Your task to perform on an android device: Is it going to rain this weekend? Image 0: 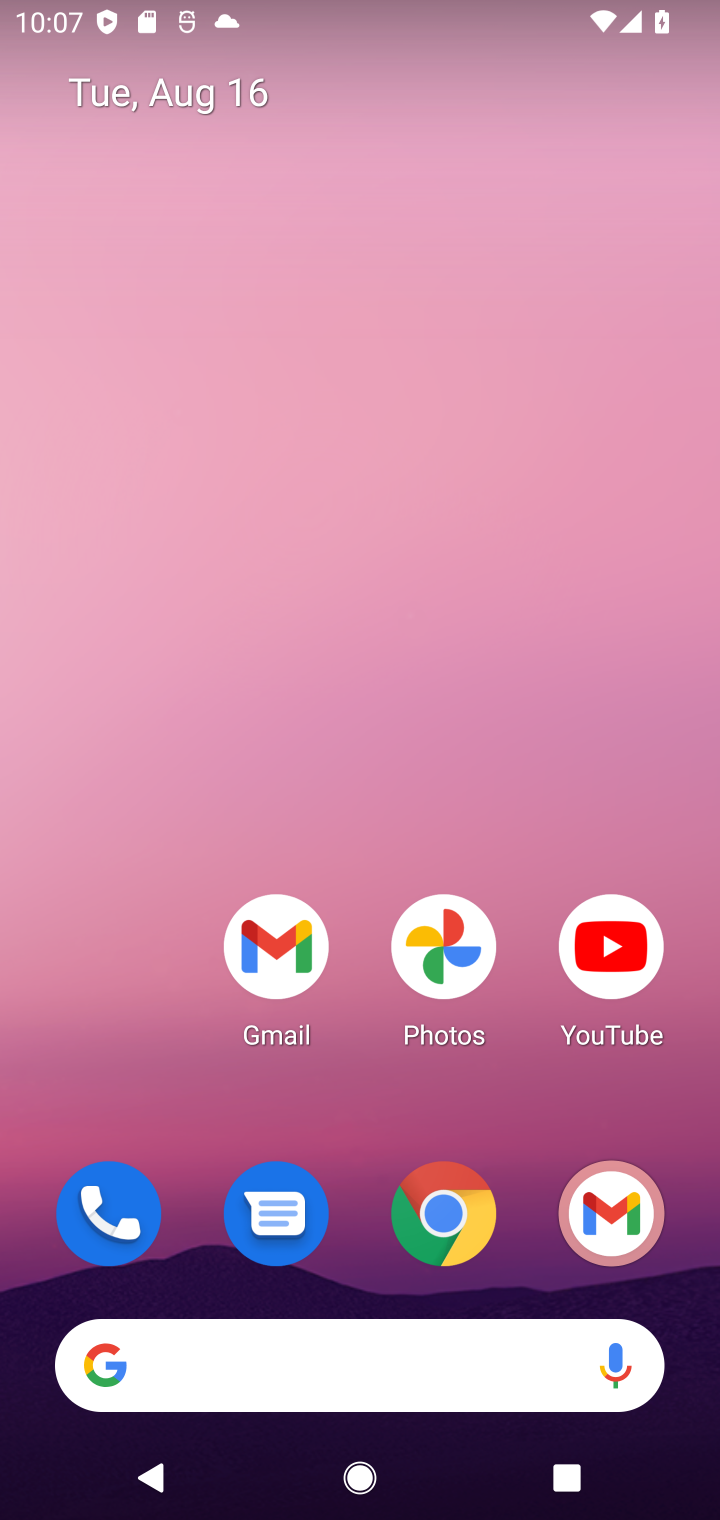
Step 0: drag from (353, 1230) to (451, 291)
Your task to perform on an android device: Is it going to rain this weekend? Image 1: 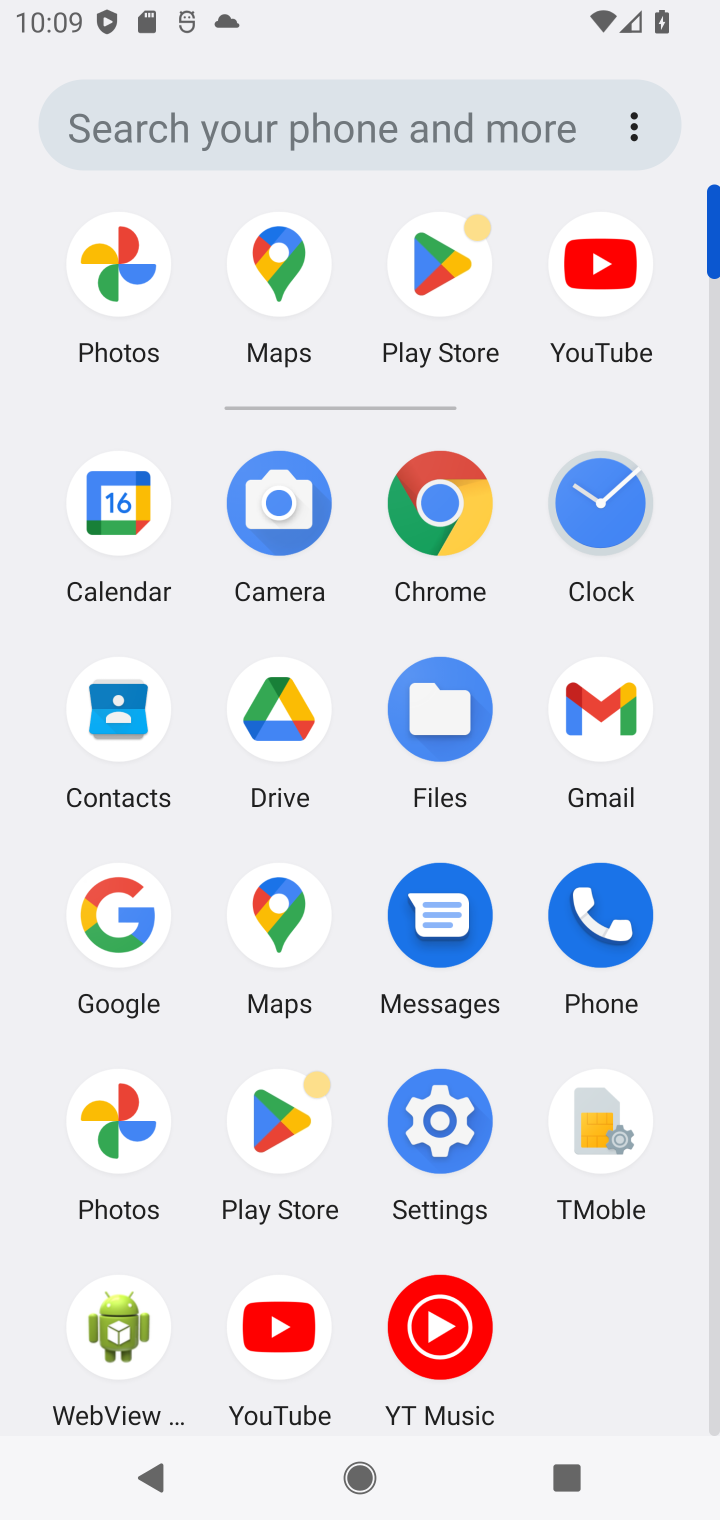
Step 1: click (458, 497)
Your task to perform on an android device: Is it going to rain this weekend? Image 2: 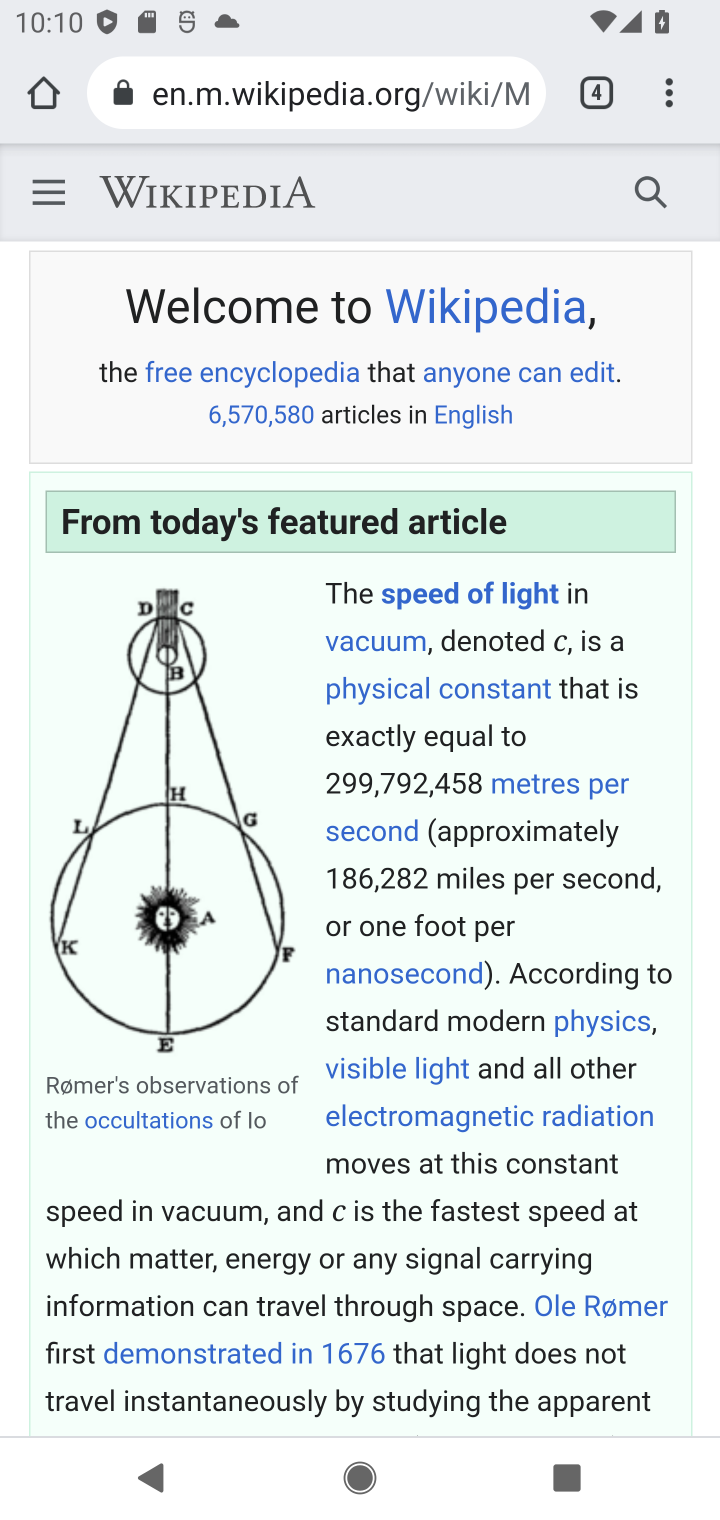
Step 2: click (691, 78)
Your task to perform on an android device: Is it going to rain this weekend? Image 3: 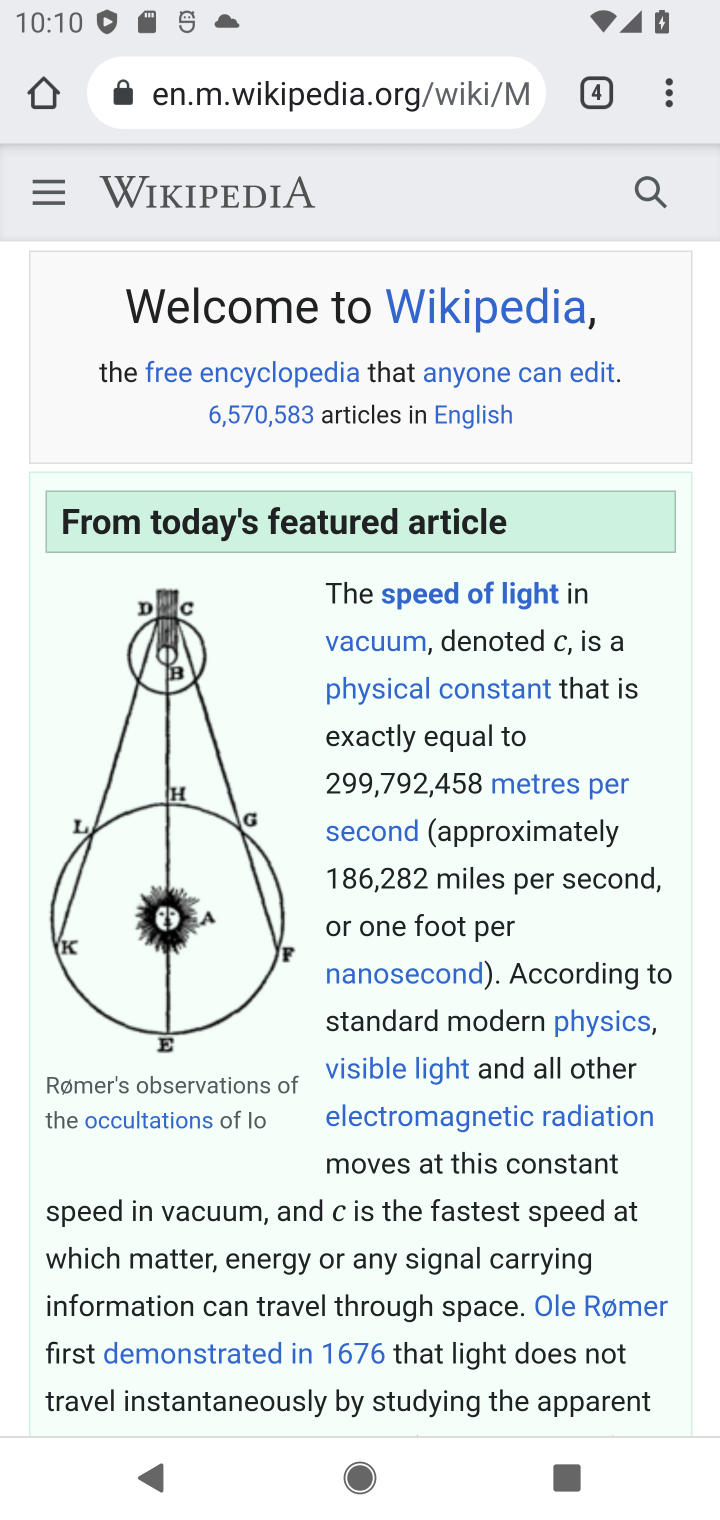
Step 3: click (664, 97)
Your task to perform on an android device: Is it going to rain this weekend? Image 4: 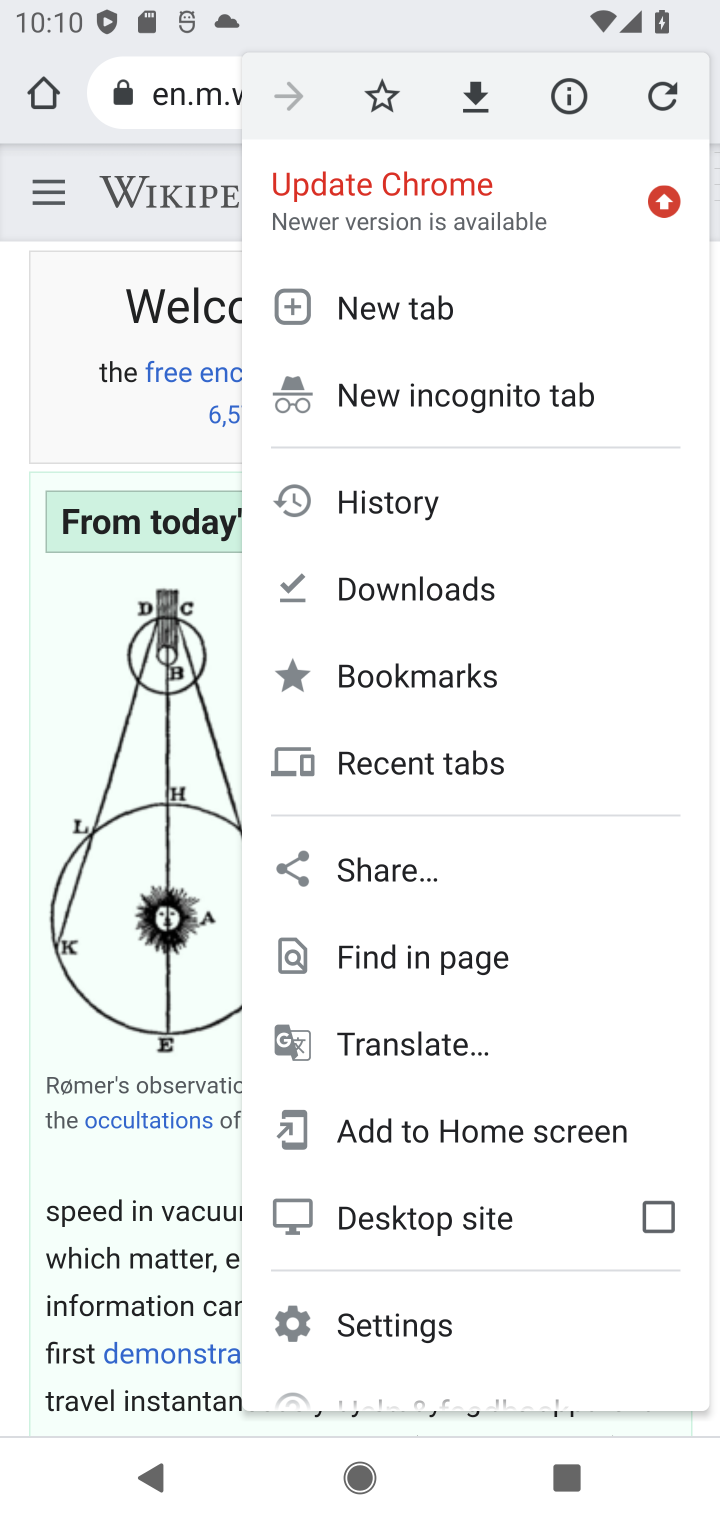
Step 4: click (330, 302)
Your task to perform on an android device: Is it going to rain this weekend? Image 5: 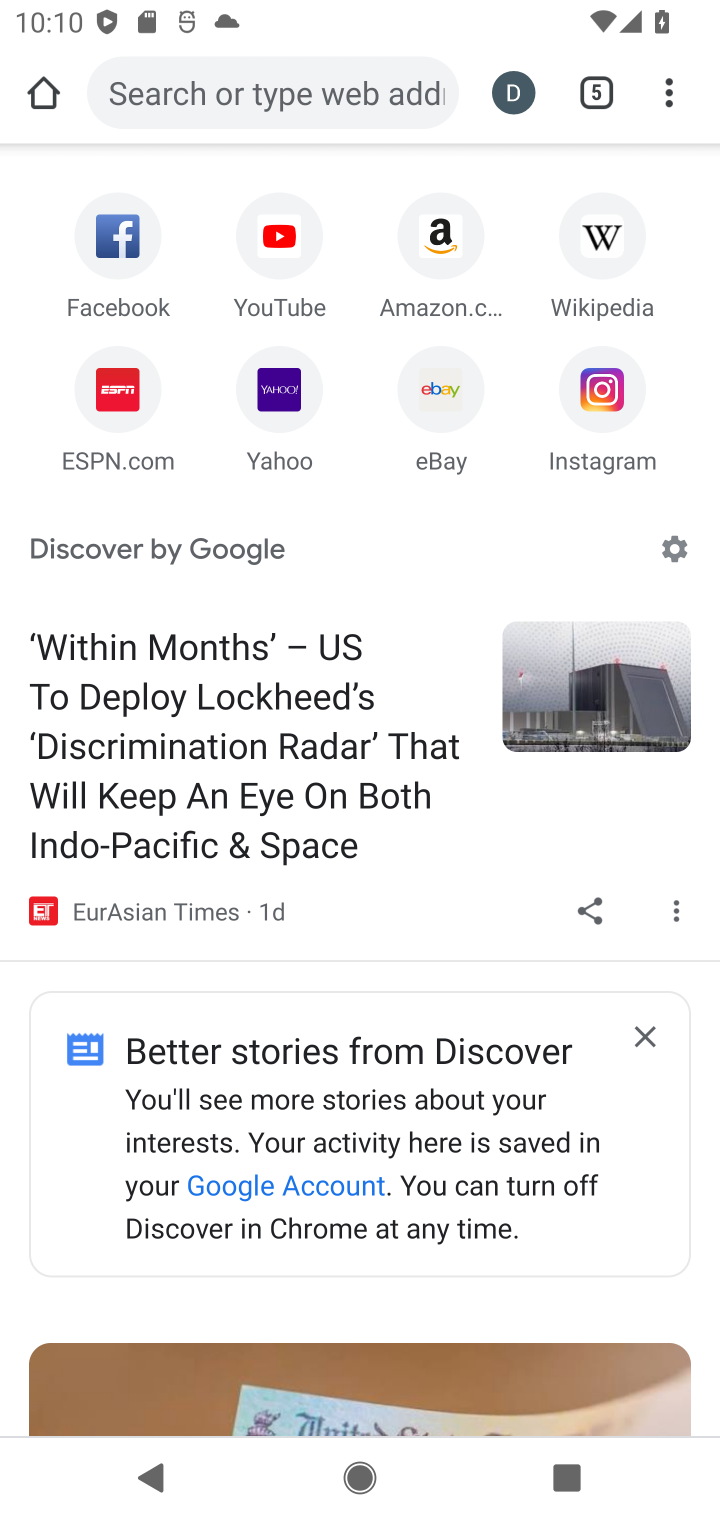
Step 5: click (298, 77)
Your task to perform on an android device: Is it going to rain this weekend? Image 6: 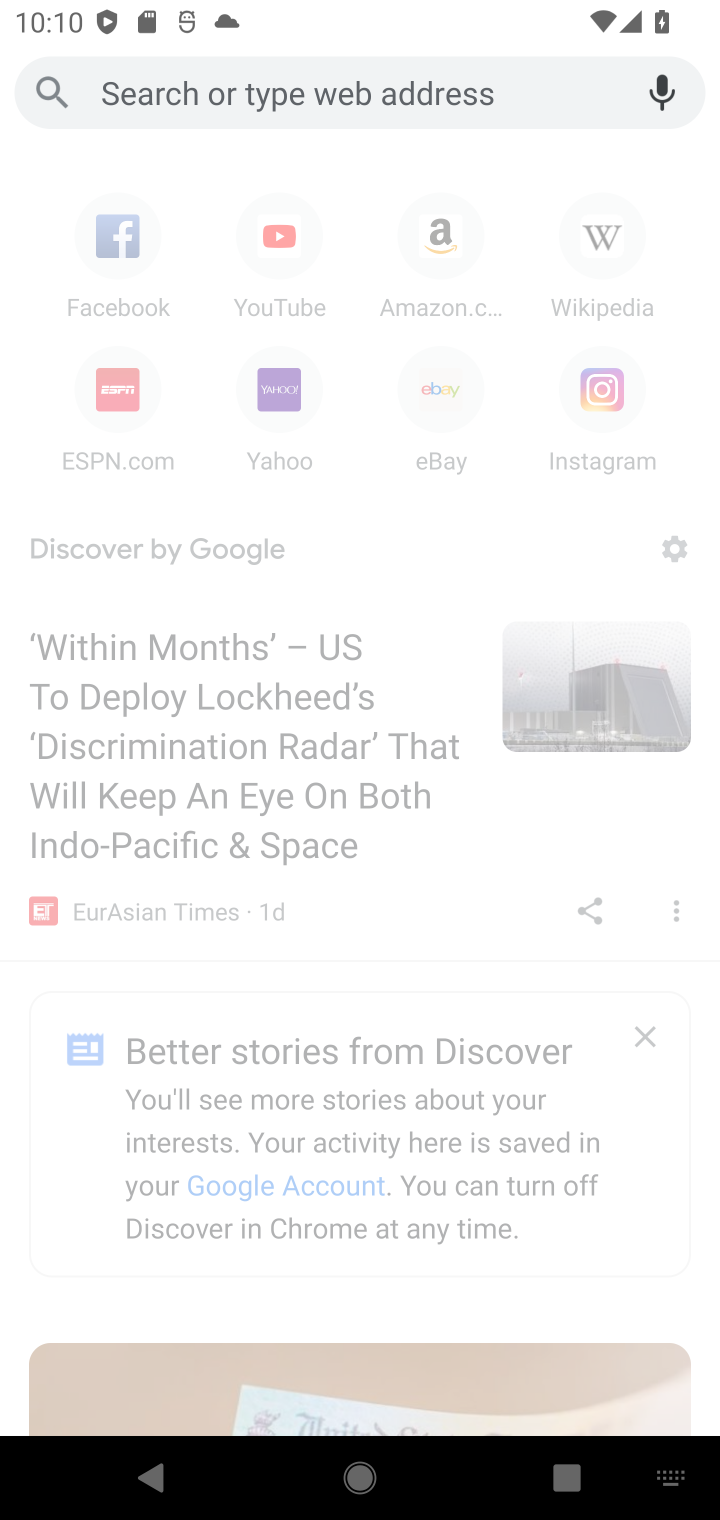
Step 6: type "Is it going to rain this weekend? "
Your task to perform on an android device: Is it going to rain this weekend? Image 7: 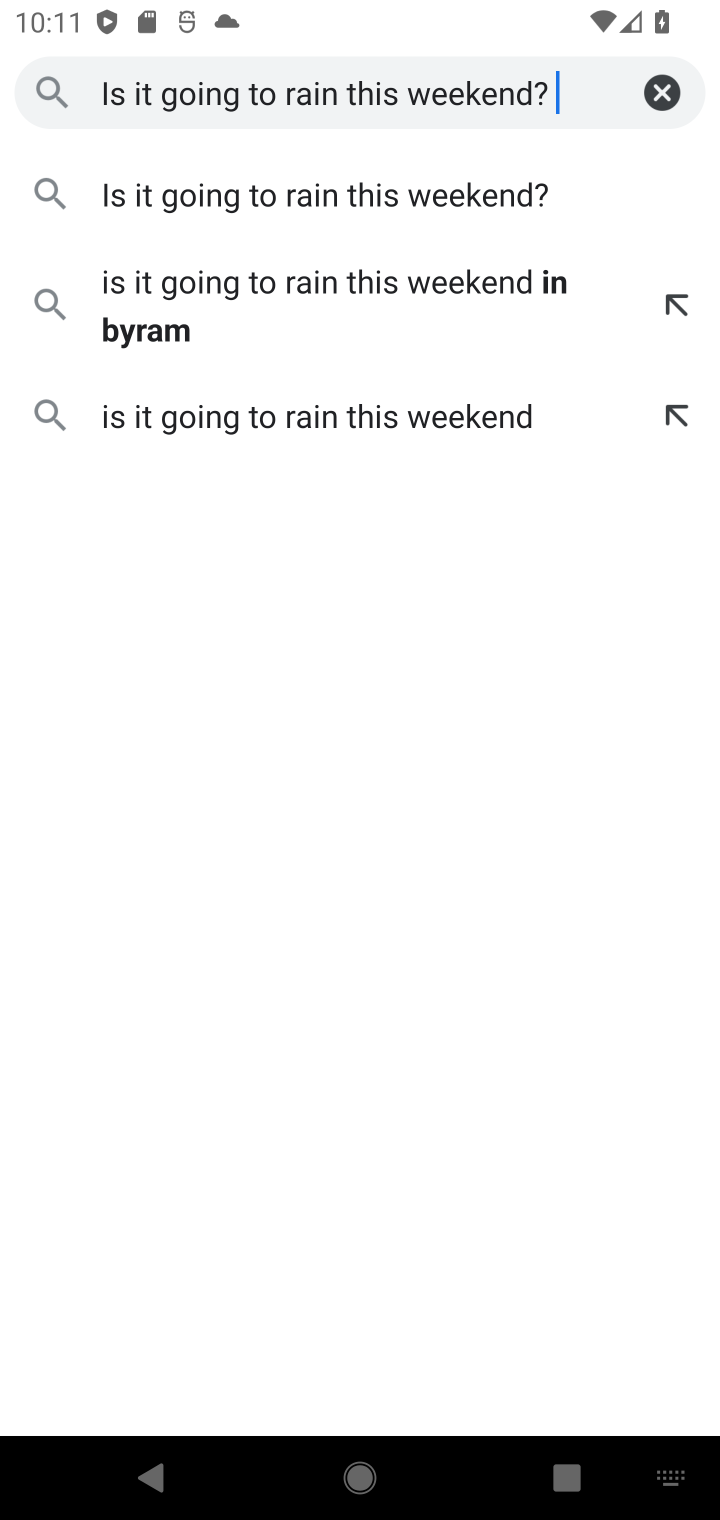
Step 7: click (341, 176)
Your task to perform on an android device: Is it going to rain this weekend? Image 8: 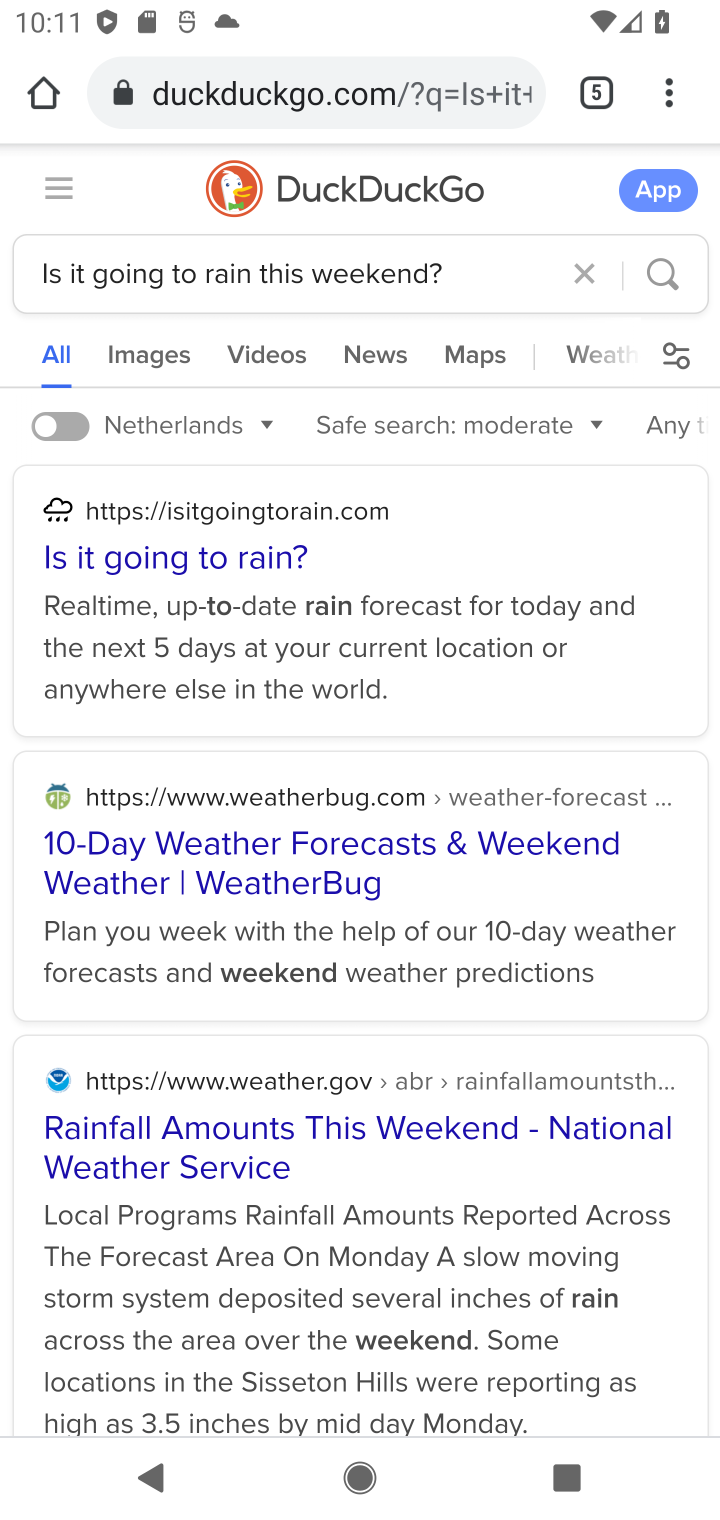
Step 8: task complete